Your task to perform on an android device: change keyboard looks Image 0: 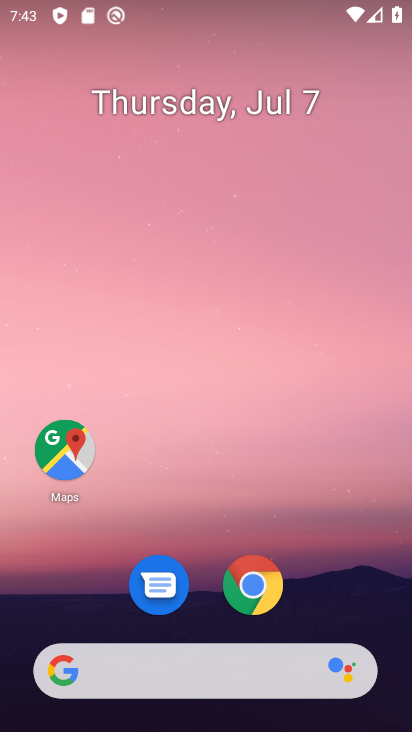
Step 0: drag from (309, 567) to (276, 16)
Your task to perform on an android device: change keyboard looks Image 1: 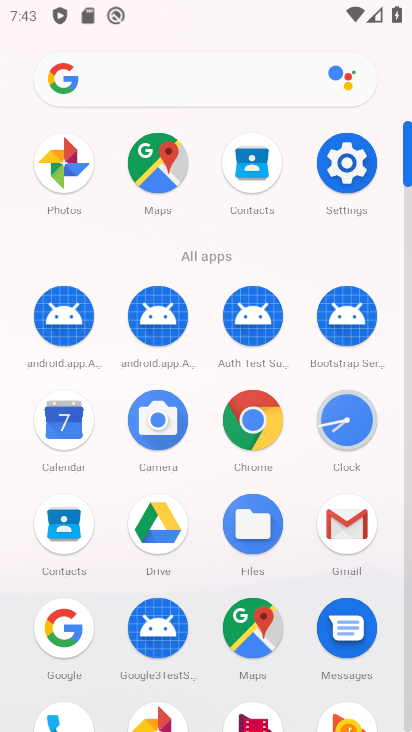
Step 1: click (353, 156)
Your task to perform on an android device: change keyboard looks Image 2: 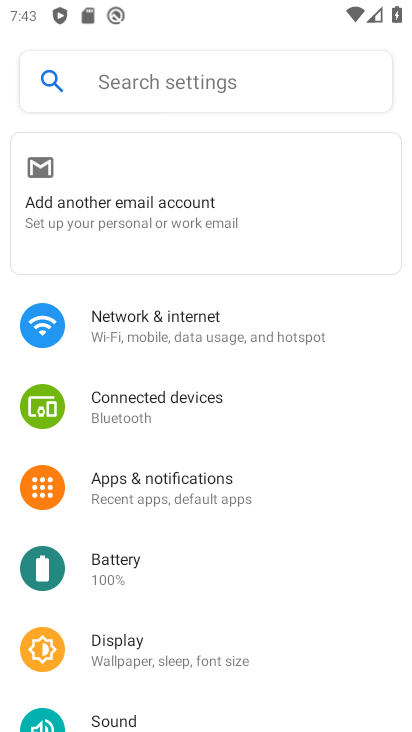
Step 2: drag from (244, 630) to (233, 197)
Your task to perform on an android device: change keyboard looks Image 3: 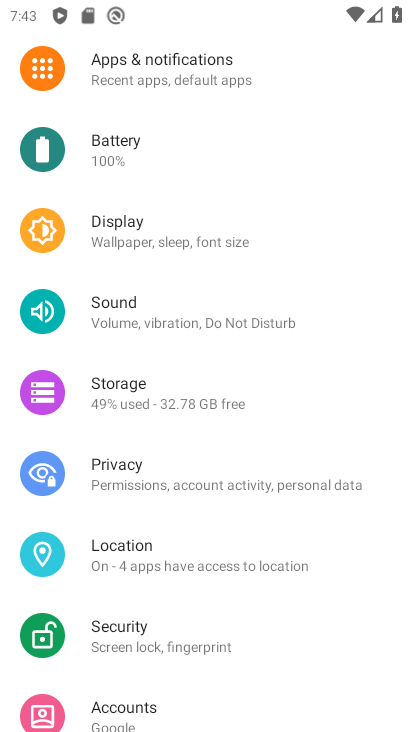
Step 3: drag from (210, 605) to (217, 88)
Your task to perform on an android device: change keyboard looks Image 4: 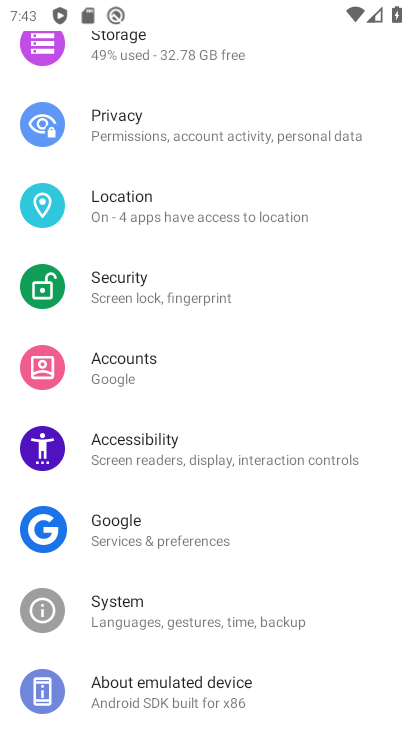
Step 4: click (185, 608)
Your task to perform on an android device: change keyboard looks Image 5: 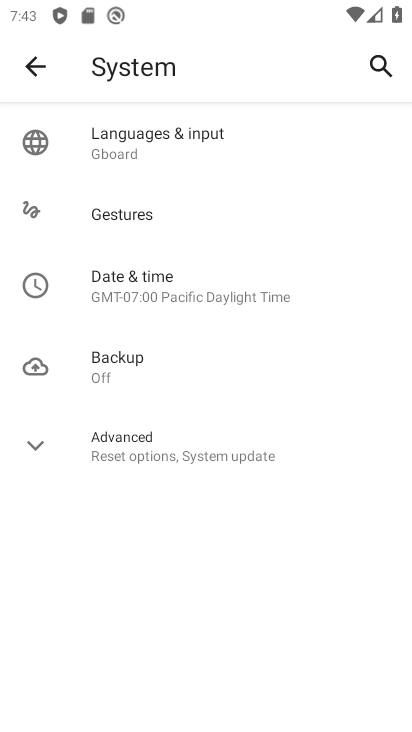
Step 5: click (185, 140)
Your task to perform on an android device: change keyboard looks Image 6: 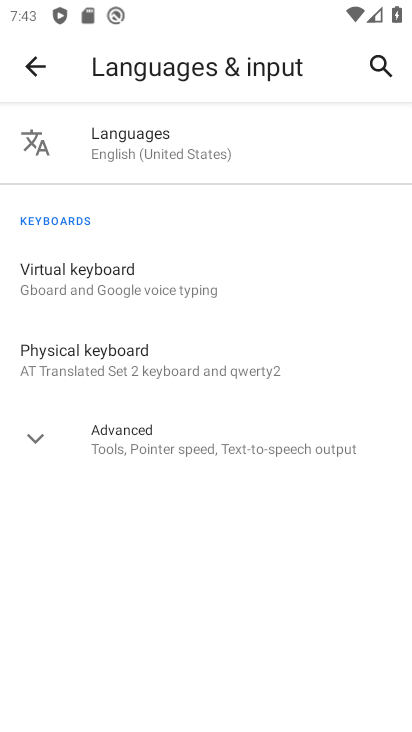
Step 6: click (161, 275)
Your task to perform on an android device: change keyboard looks Image 7: 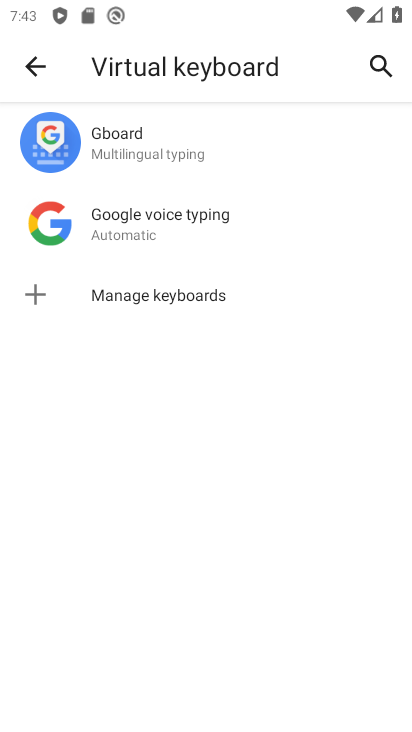
Step 7: click (159, 152)
Your task to perform on an android device: change keyboard looks Image 8: 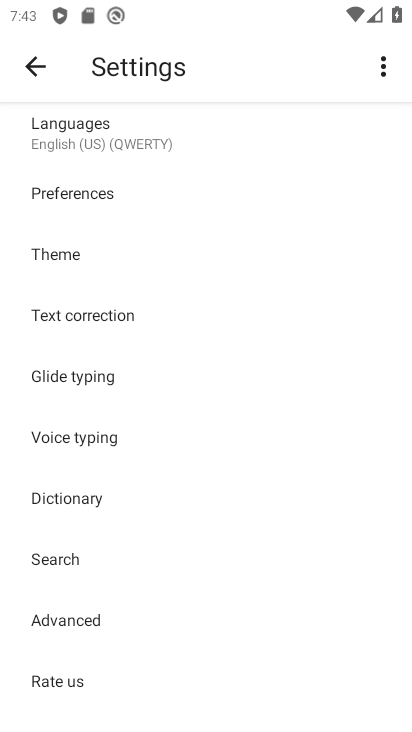
Step 8: click (75, 249)
Your task to perform on an android device: change keyboard looks Image 9: 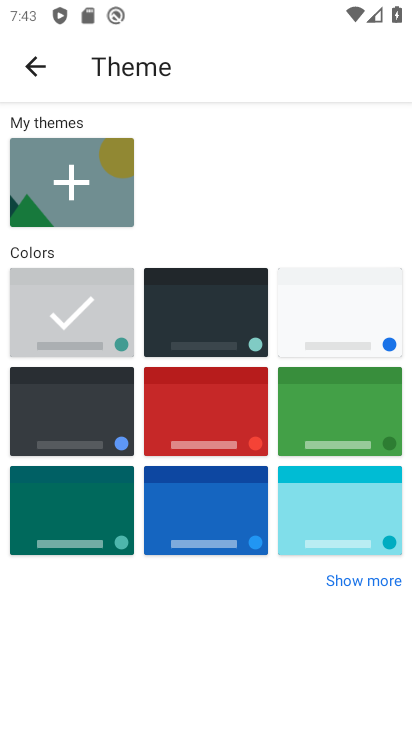
Step 9: click (204, 332)
Your task to perform on an android device: change keyboard looks Image 10: 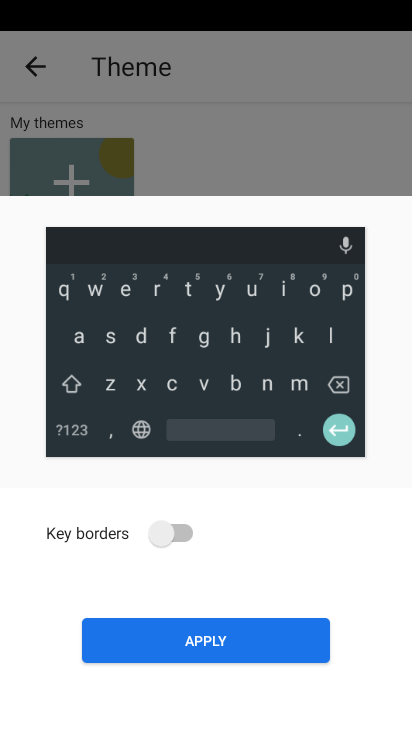
Step 10: click (177, 533)
Your task to perform on an android device: change keyboard looks Image 11: 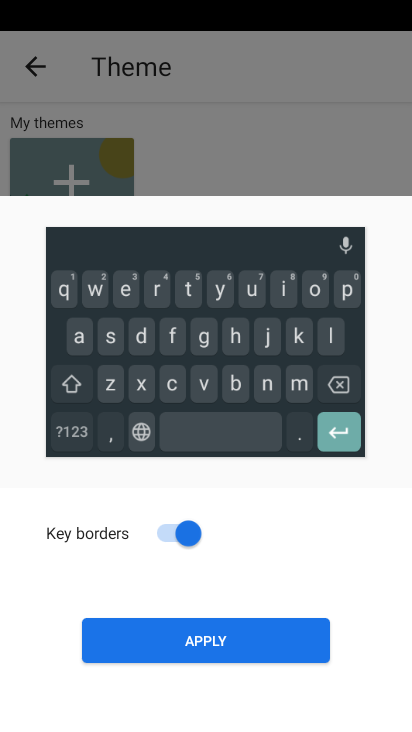
Step 11: click (237, 645)
Your task to perform on an android device: change keyboard looks Image 12: 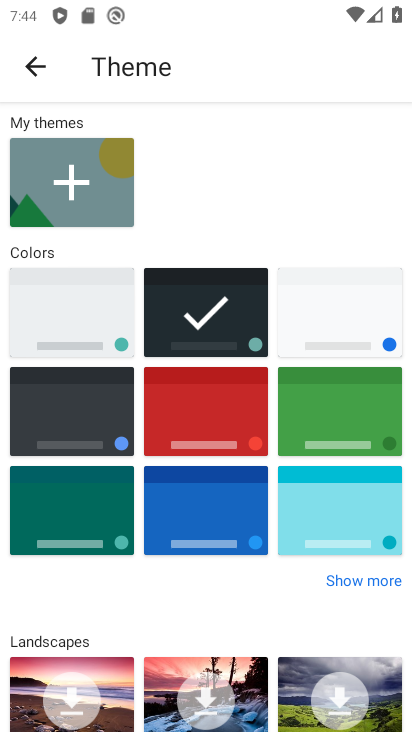
Step 12: task complete